Your task to perform on an android device: check data usage Image 0: 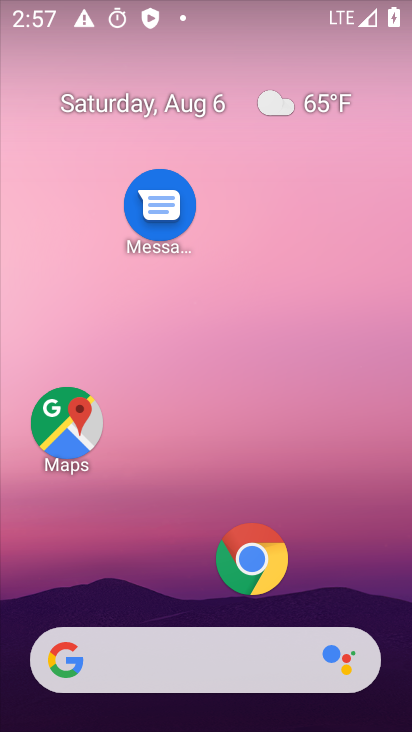
Step 0: drag from (197, 552) to (201, 164)
Your task to perform on an android device: check data usage Image 1: 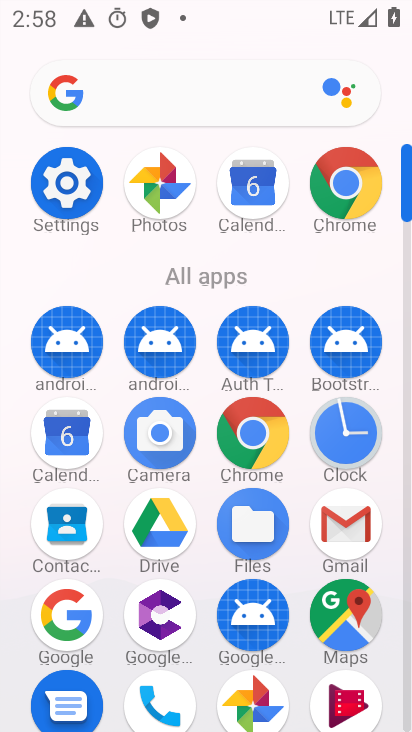
Step 1: click (67, 183)
Your task to perform on an android device: check data usage Image 2: 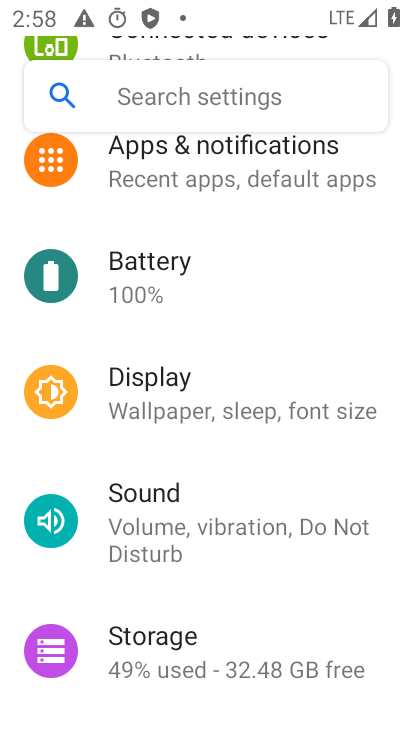
Step 2: drag from (161, 570) to (183, 282)
Your task to perform on an android device: check data usage Image 3: 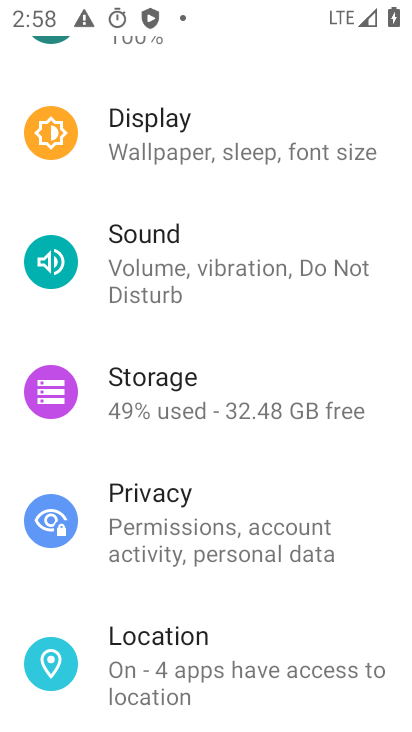
Step 3: drag from (198, 242) to (198, 614)
Your task to perform on an android device: check data usage Image 4: 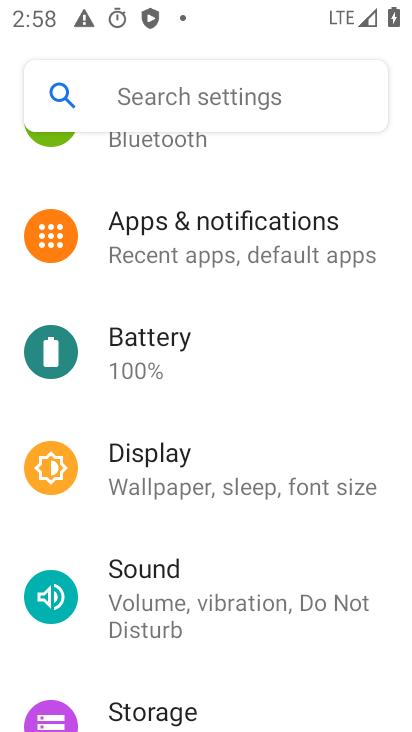
Step 4: drag from (259, 284) to (252, 483)
Your task to perform on an android device: check data usage Image 5: 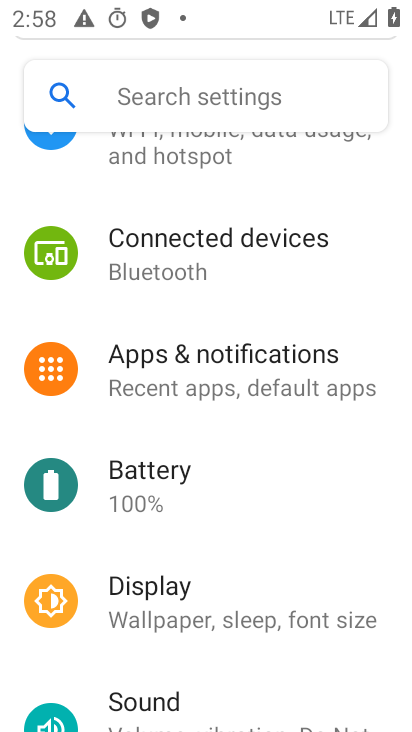
Step 5: drag from (184, 249) to (171, 634)
Your task to perform on an android device: check data usage Image 6: 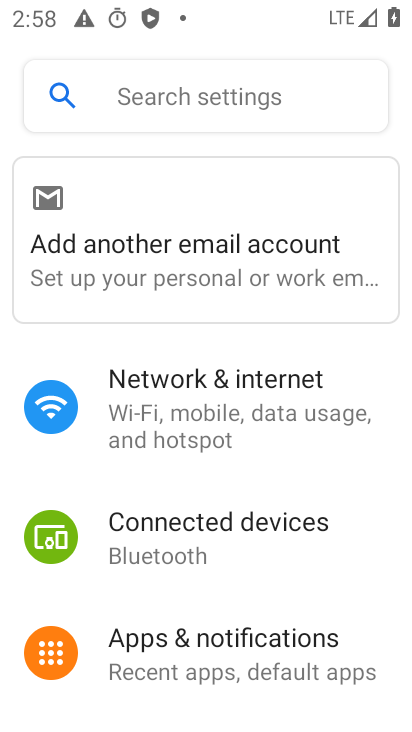
Step 6: click (182, 434)
Your task to perform on an android device: check data usage Image 7: 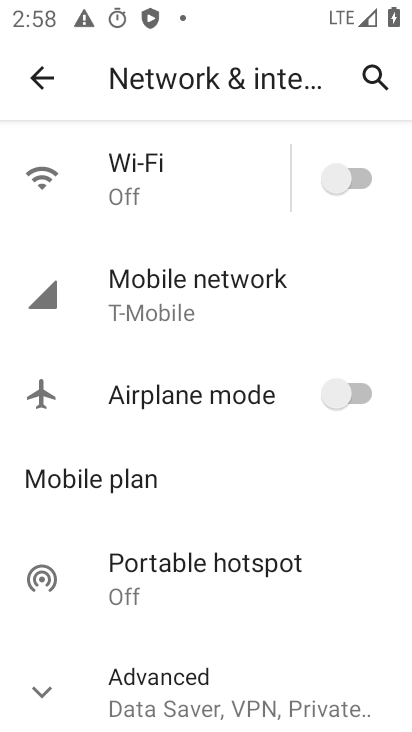
Step 7: click (160, 307)
Your task to perform on an android device: check data usage Image 8: 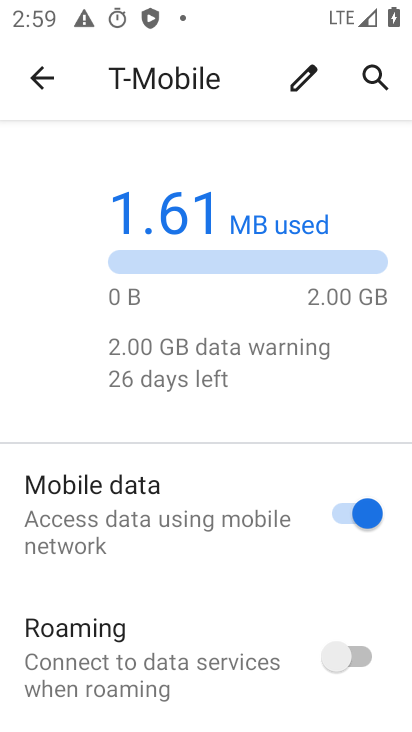
Step 8: task complete